Your task to perform on an android device: install app "Upside-Cash back on gas & food" Image 0: 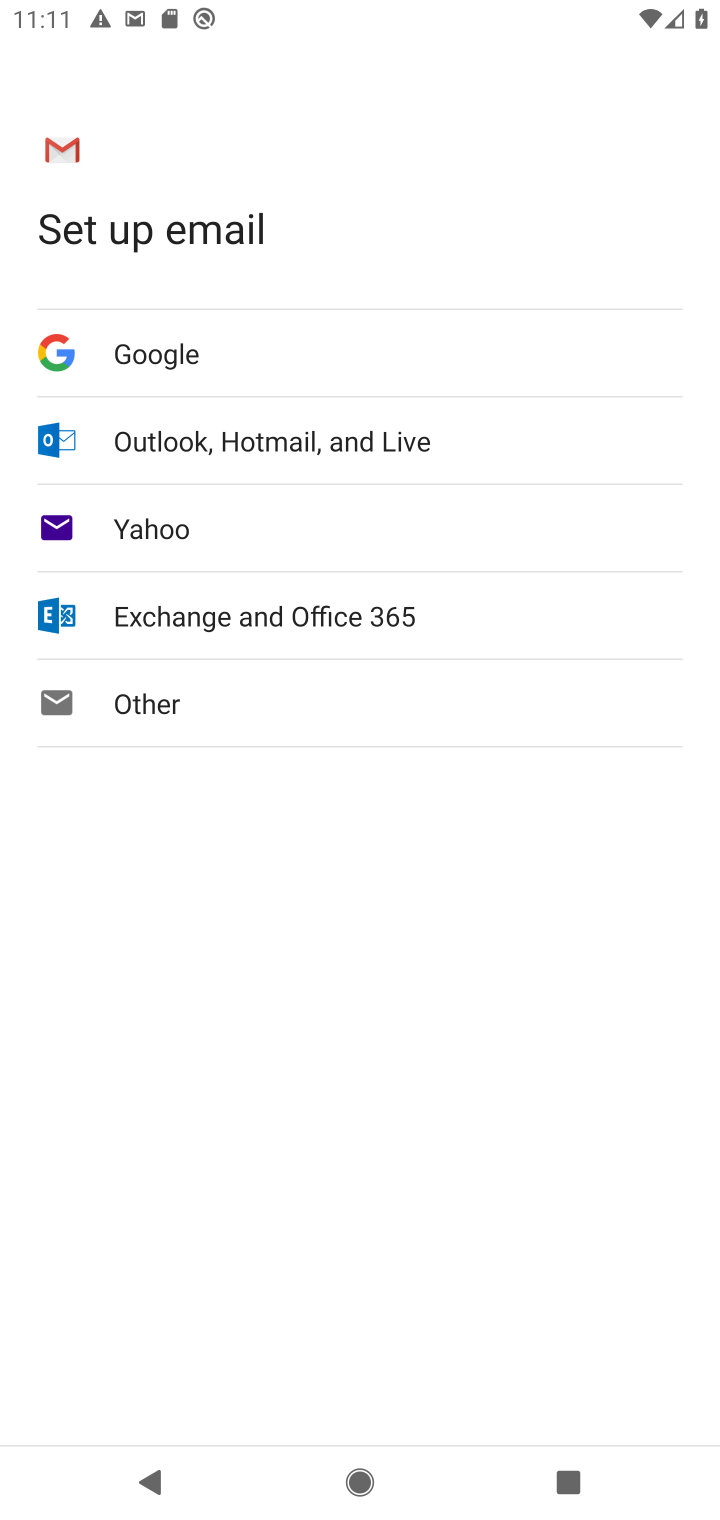
Step 0: press home button
Your task to perform on an android device: install app "Upside-Cash back on gas & food" Image 1: 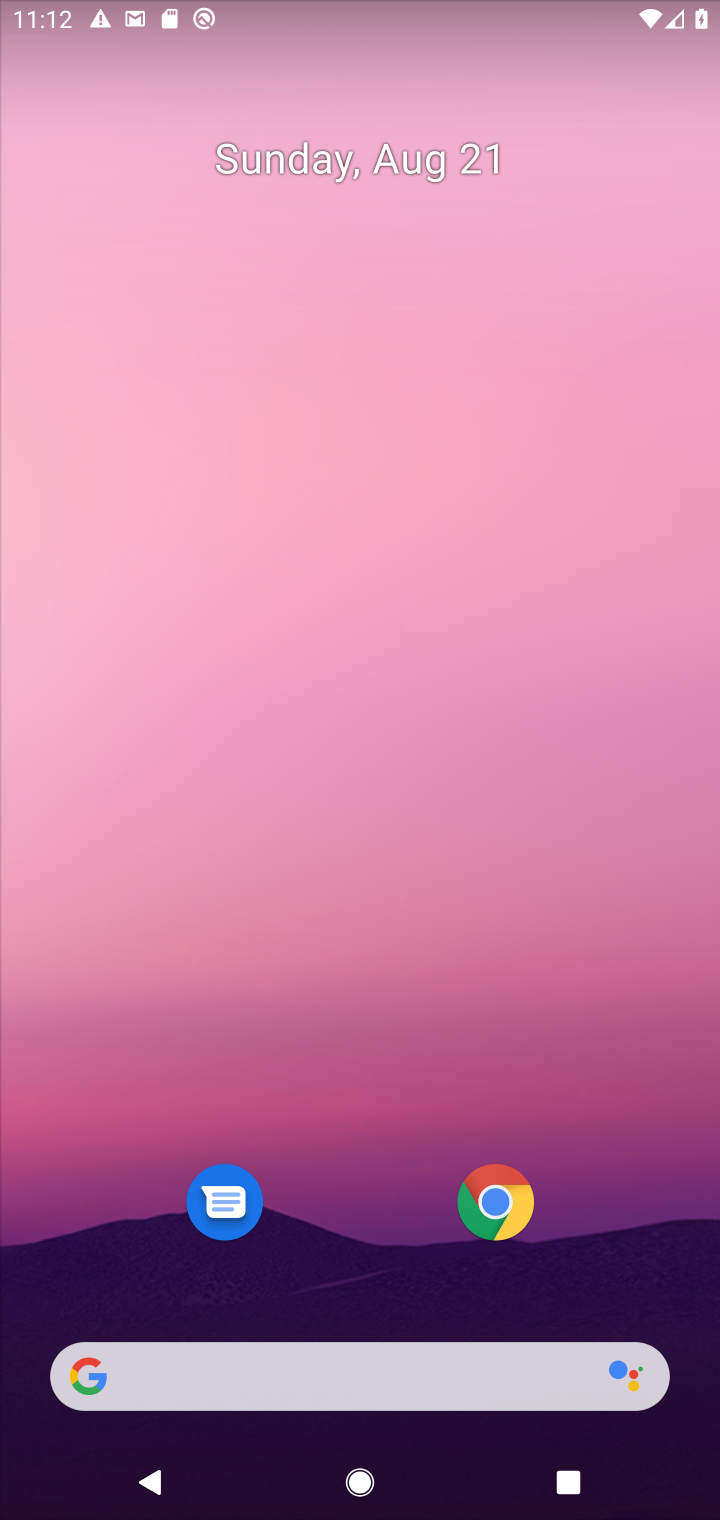
Step 1: drag from (338, 850) to (490, 25)
Your task to perform on an android device: install app "Upside-Cash back on gas & food" Image 2: 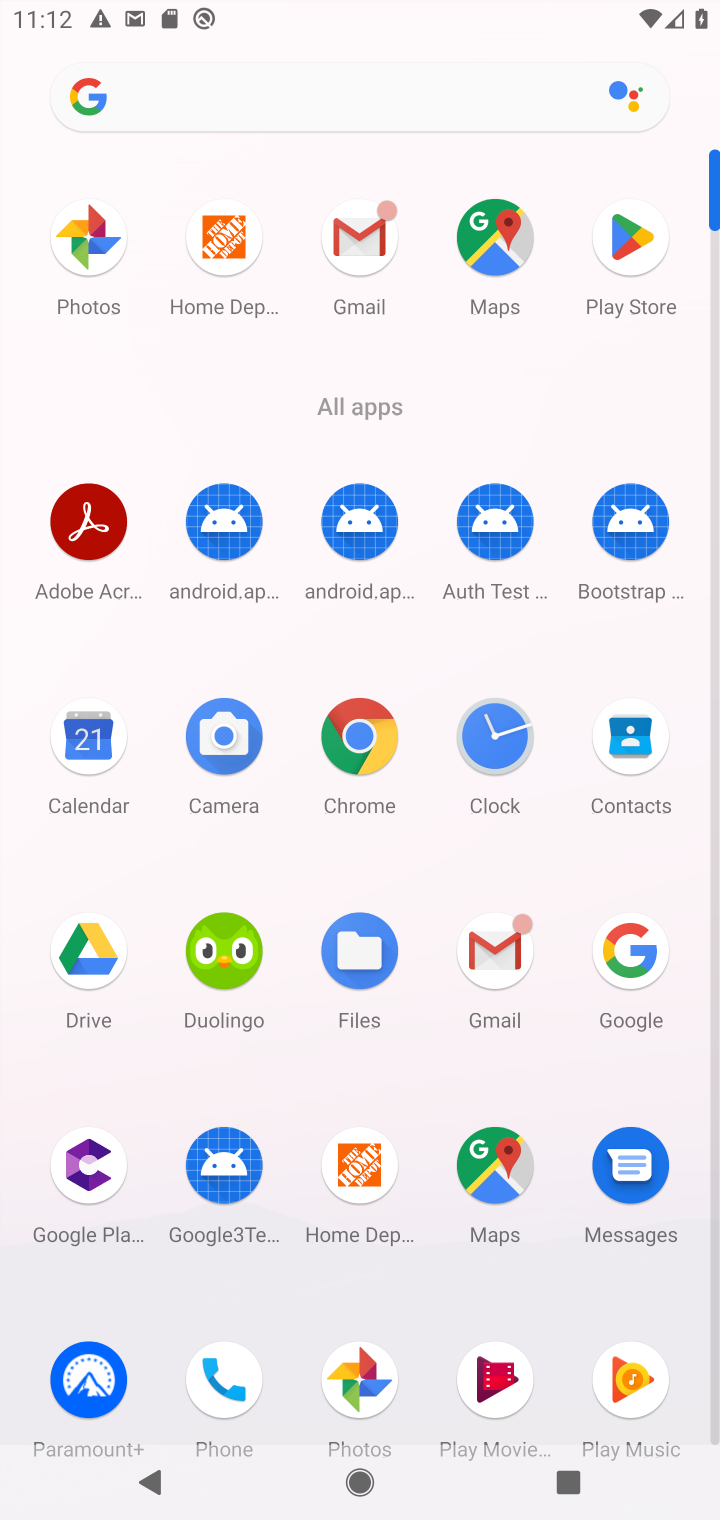
Step 2: click (621, 241)
Your task to perform on an android device: install app "Upside-Cash back on gas & food" Image 3: 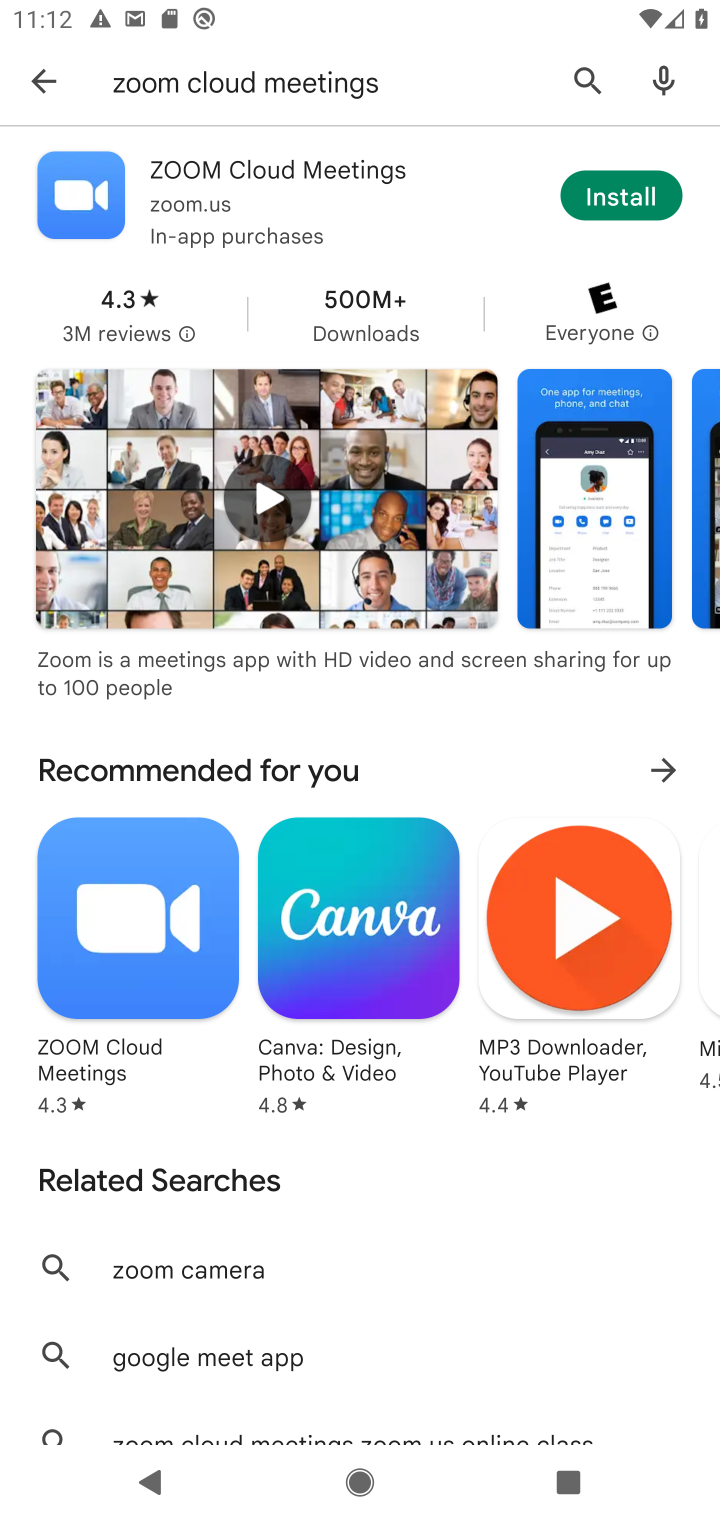
Step 3: click (589, 58)
Your task to perform on an android device: install app "Upside-Cash back on gas & food" Image 4: 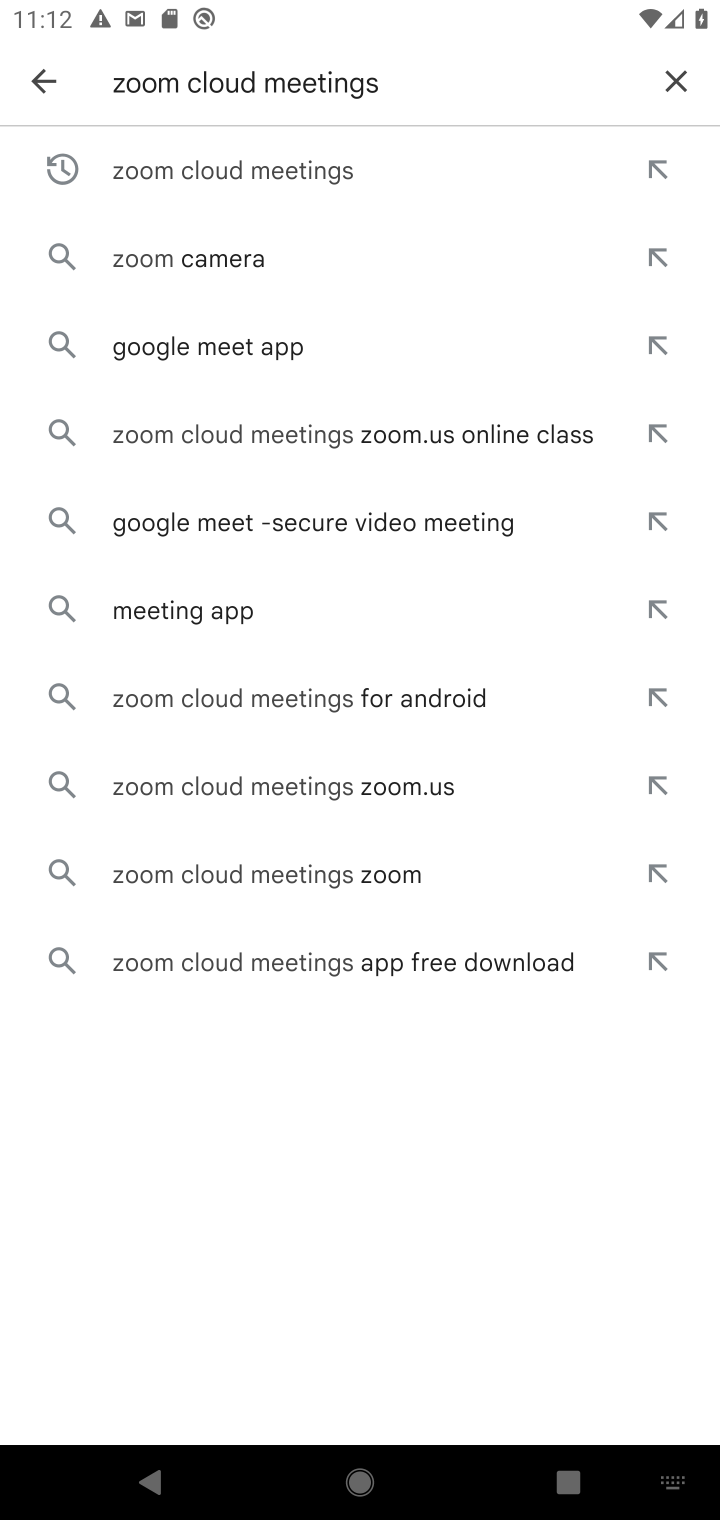
Step 4: click (672, 70)
Your task to perform on an android device: install app "Upside-Cash back on gas & food" Image 5: 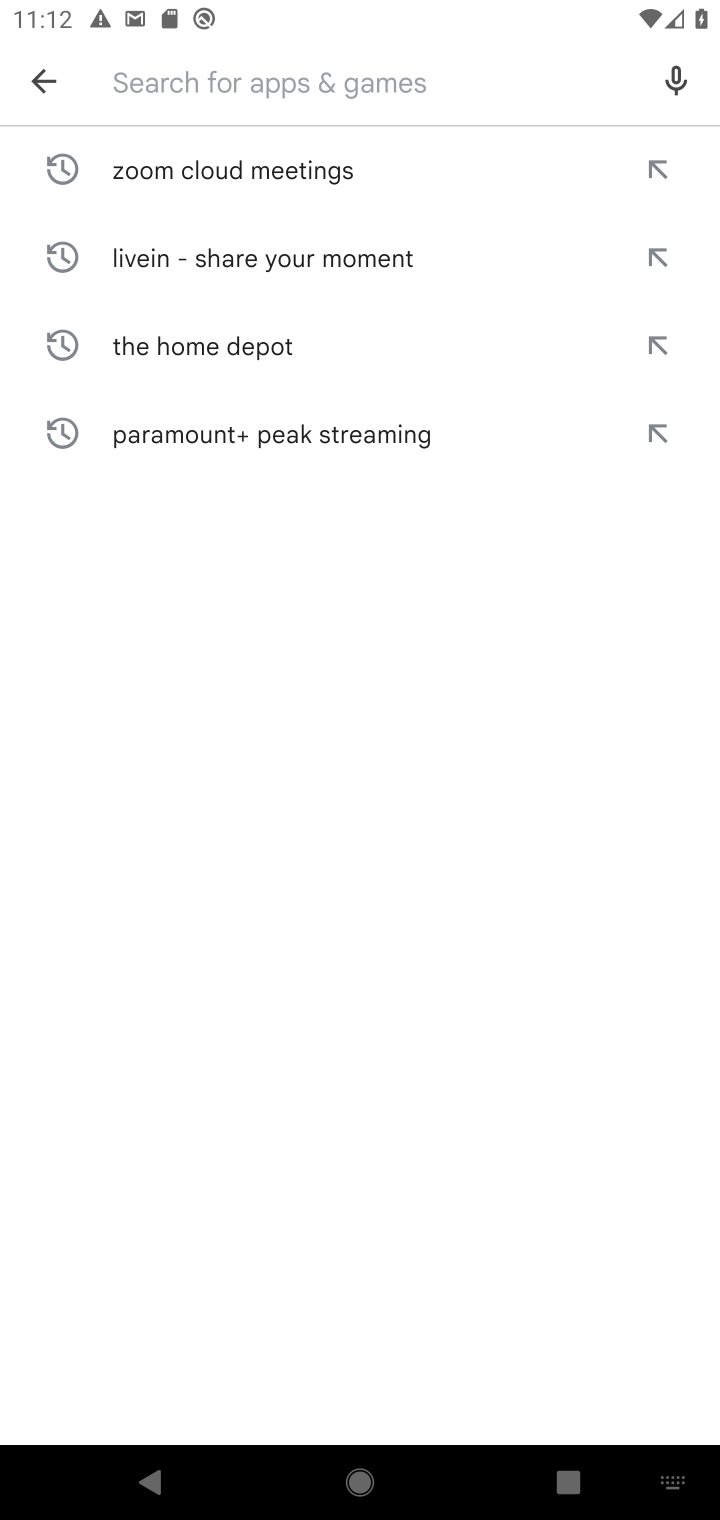
Step 5: type "Upside-Cash back on gas & food"
Your task to perform on an android device: install app "Upside-Cash back on gas & food" Image 6: 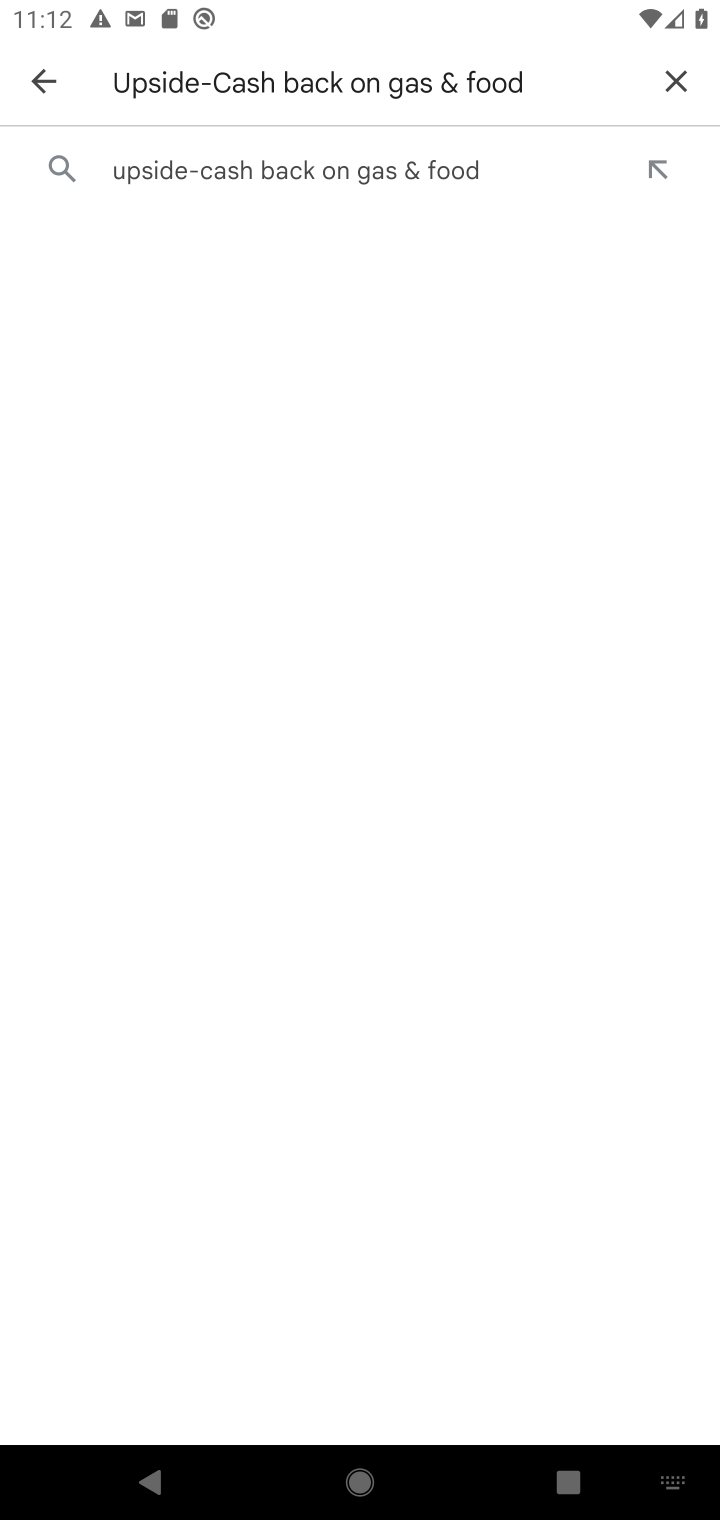
Step 6: click (343, 173)
Your task to perform on an android device: install app "Upside-Cash back on gas & food" Image 7: 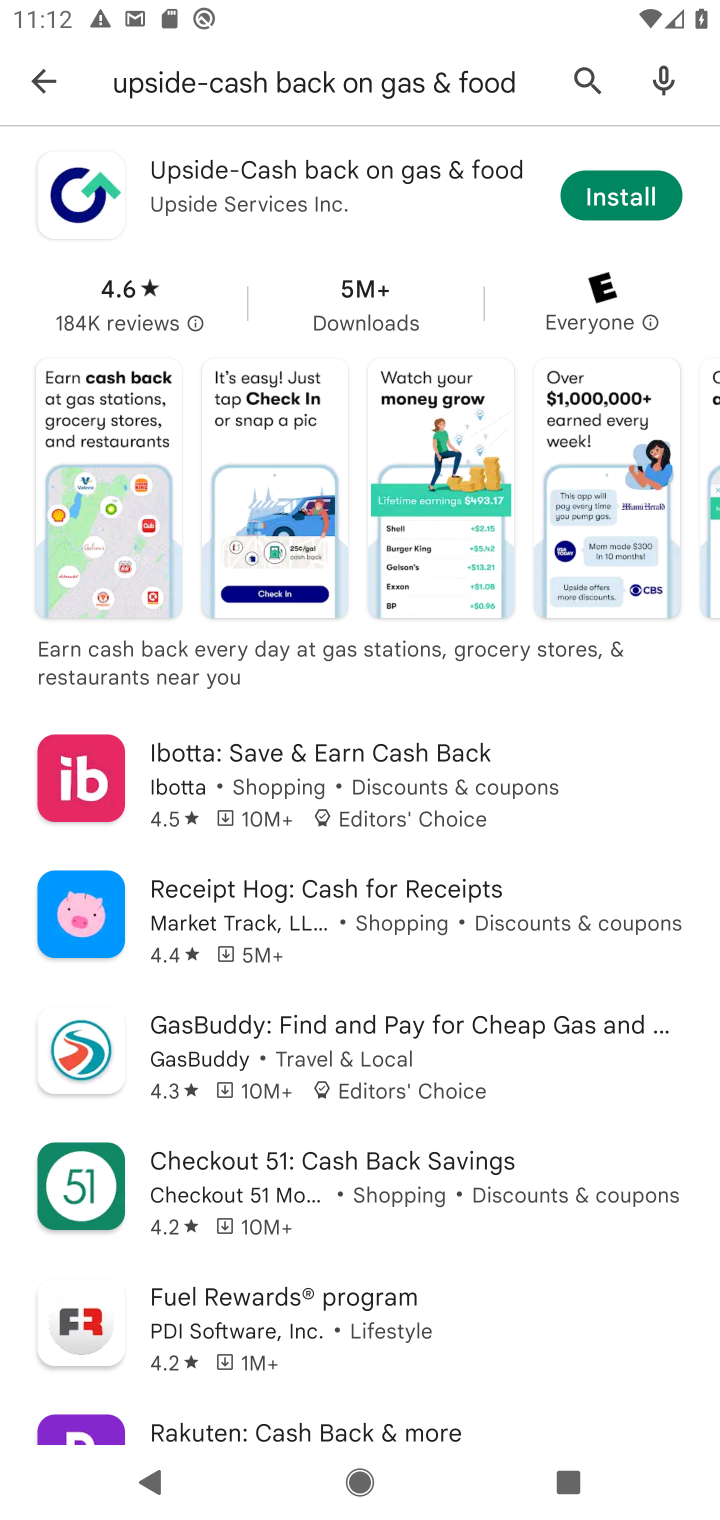
Step 7: click (630, 197)
Your task to perform on an android device: install app "Upside-Cash back on gas & food" Image 8: 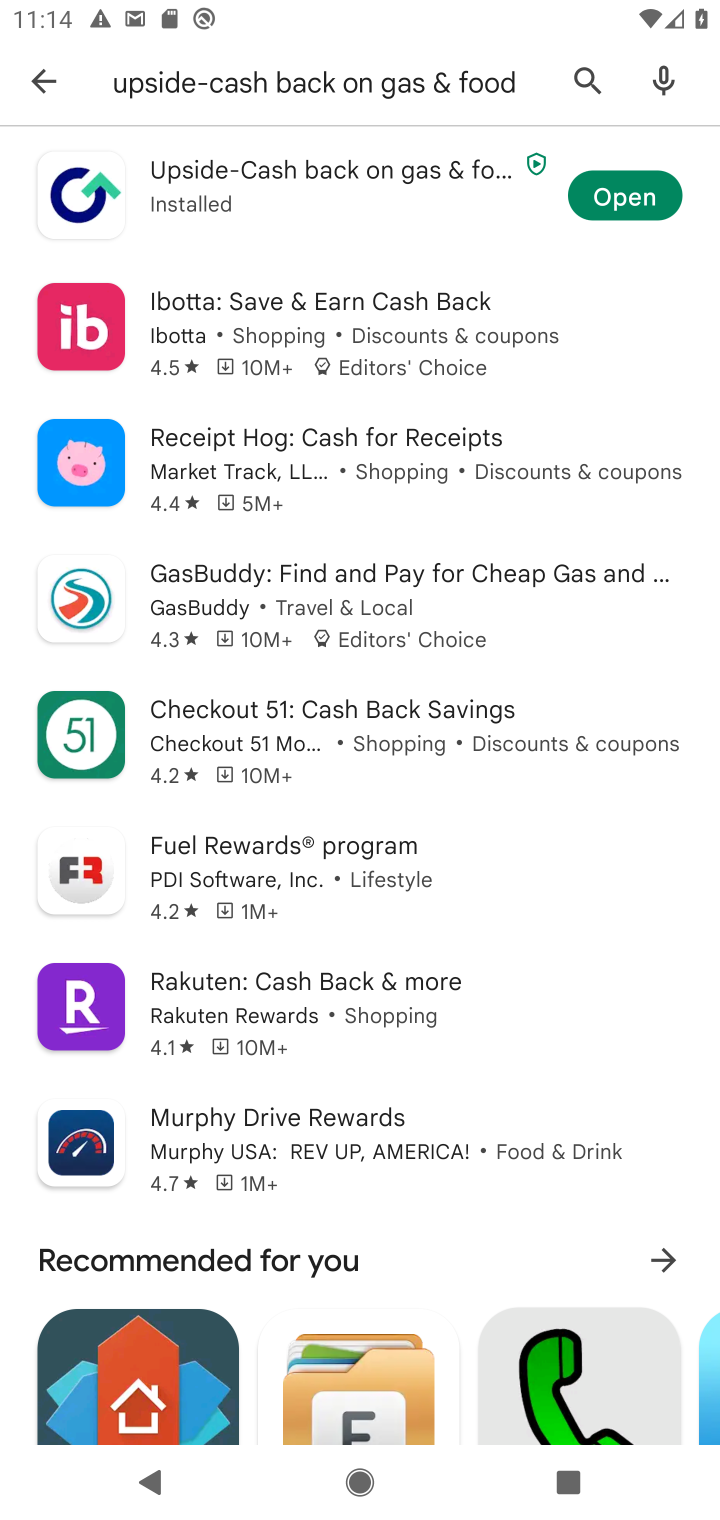
Step 8: click (230, 175)
Your task to perform on an android device: install app "Upside-Cash back on gas & food" Image 9: 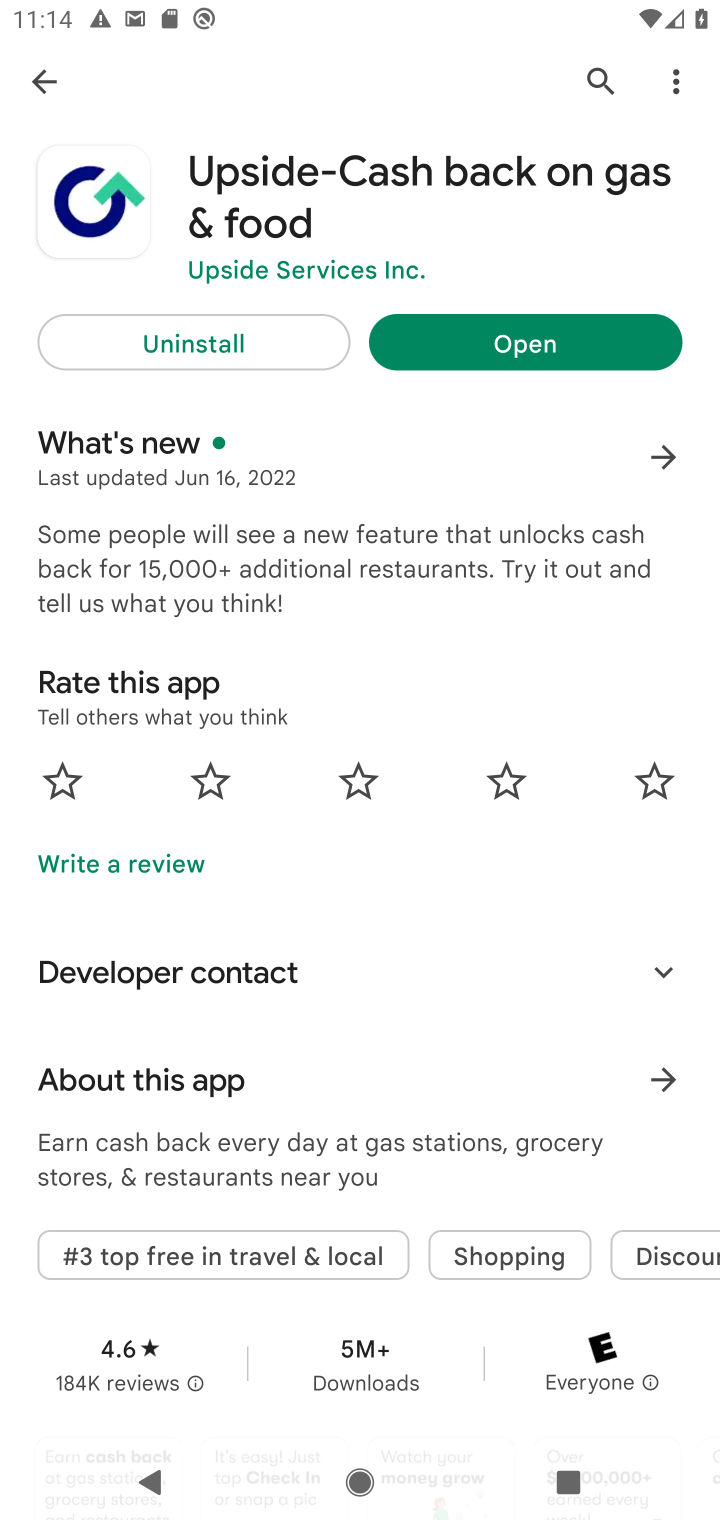
Step 9: task complete